Your task to perform on an android device: Go to Google Image 0: 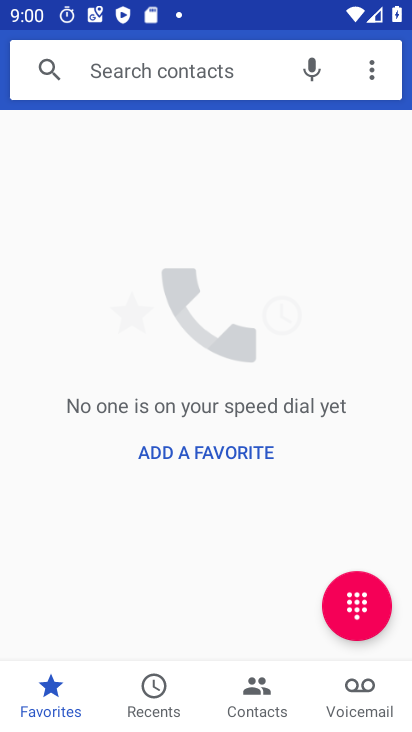
Step 0: press back button
Your task to perform on an android device: Go to Google Image 1: 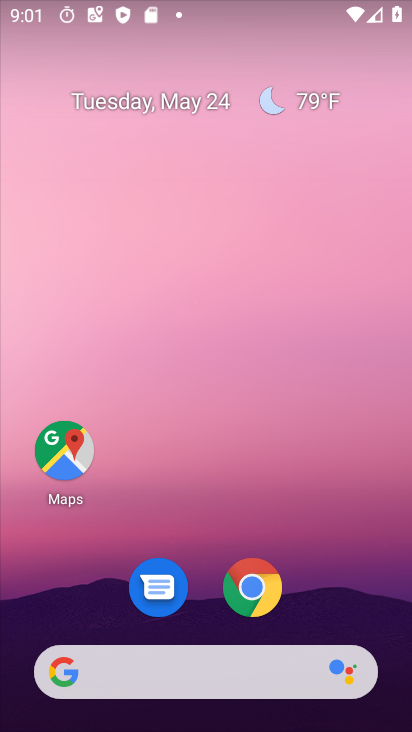
Step 1: drag from (318, 608) to (263, 186)
Your task to perform on an android device: Go to Google Image 2: 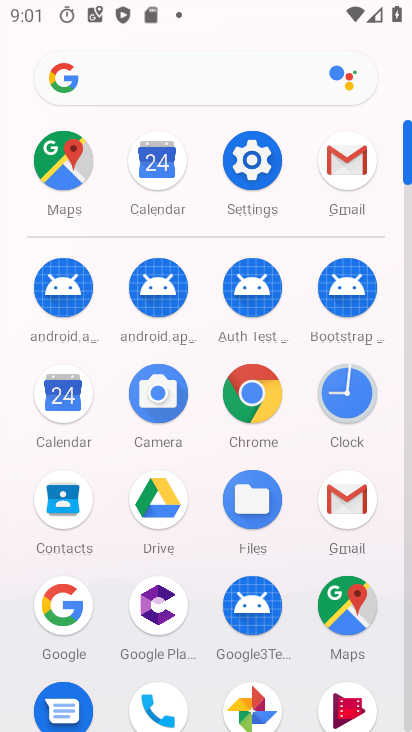
Step 2: click (58, 607)
Your task to perform on an android device: Go to Google Image 3: 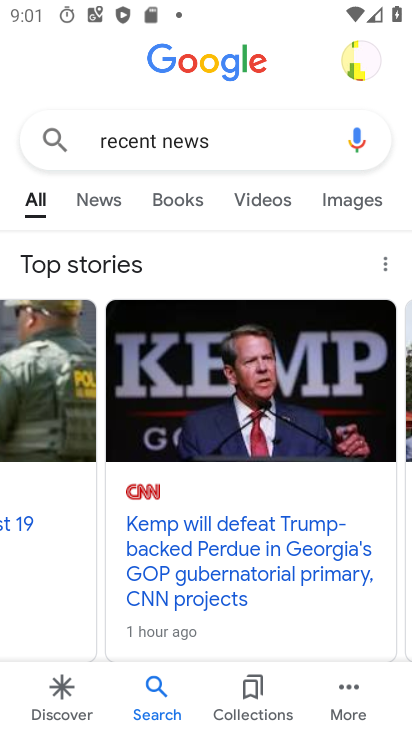
Step 3: task complete